Your task to perform on an android device: Go to network settings Image 0: 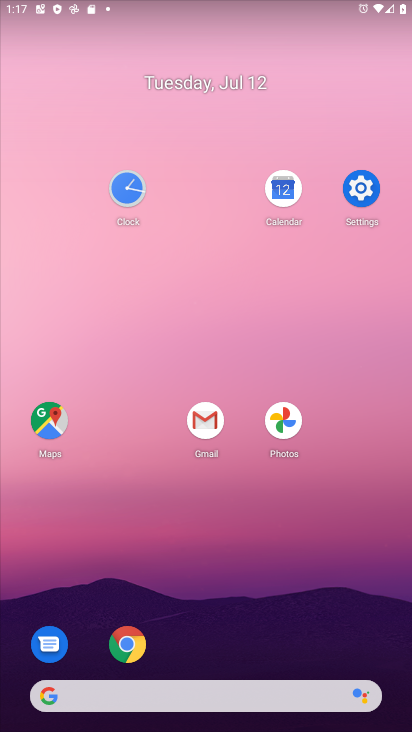
Step 0: click (367, 193)
Your task to perform on an android device: Go to network settings Image 1: 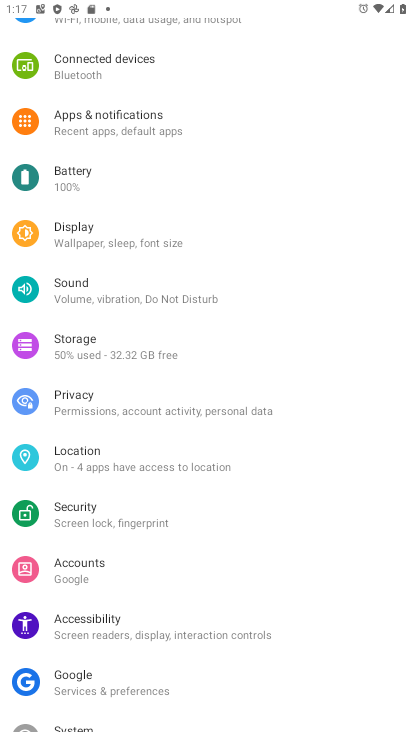
Step 1: drag from (257, 154) to (287, 489)
Your task to perform on an android device: Go to network settings Image 2: 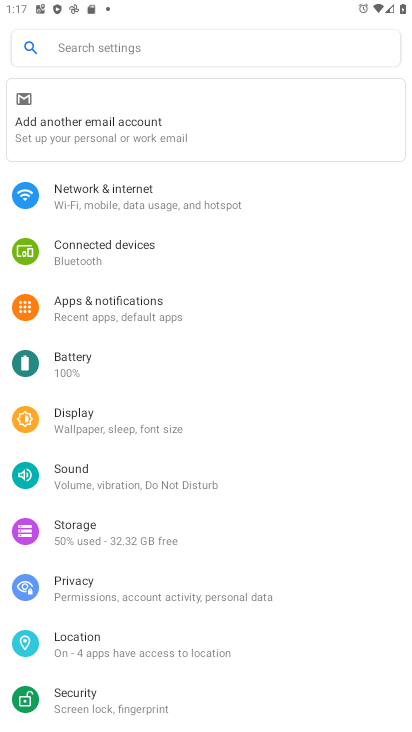
Step 2: click (140, 197)
Your task to perform on an android device: Go to network settings Image 3: 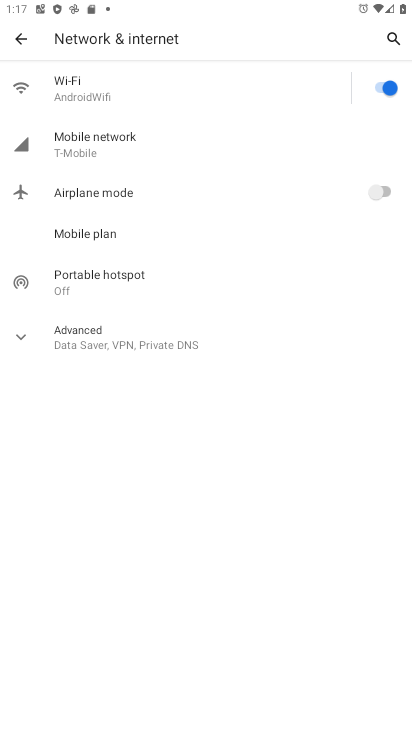
Step 3: task complete